Your task to perform on an android device: find which apps use the phone's location Image 0: 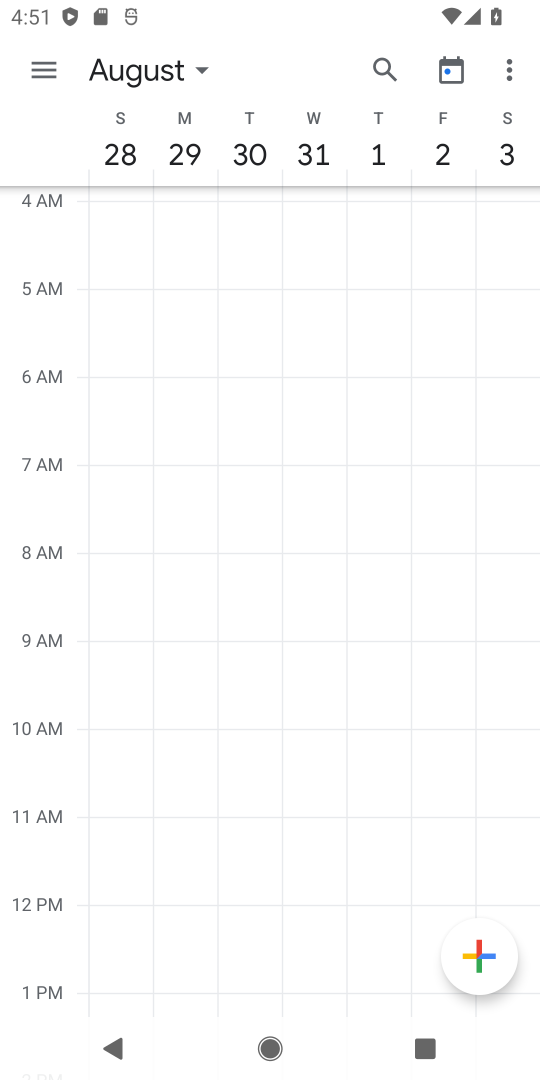
Step 0: press home button
Your task to perform on an android device: find which apps use the phone's location Image 1: 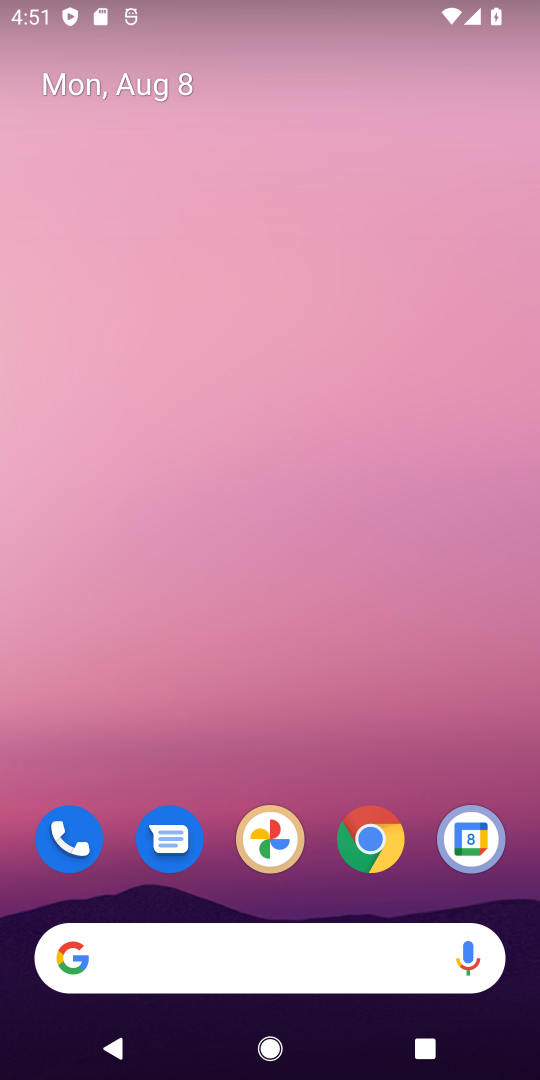
Step 1: drag from (221, 920) to (254, 38)
Your task to perform on an android device: find which apps use the phone's location Image 2: 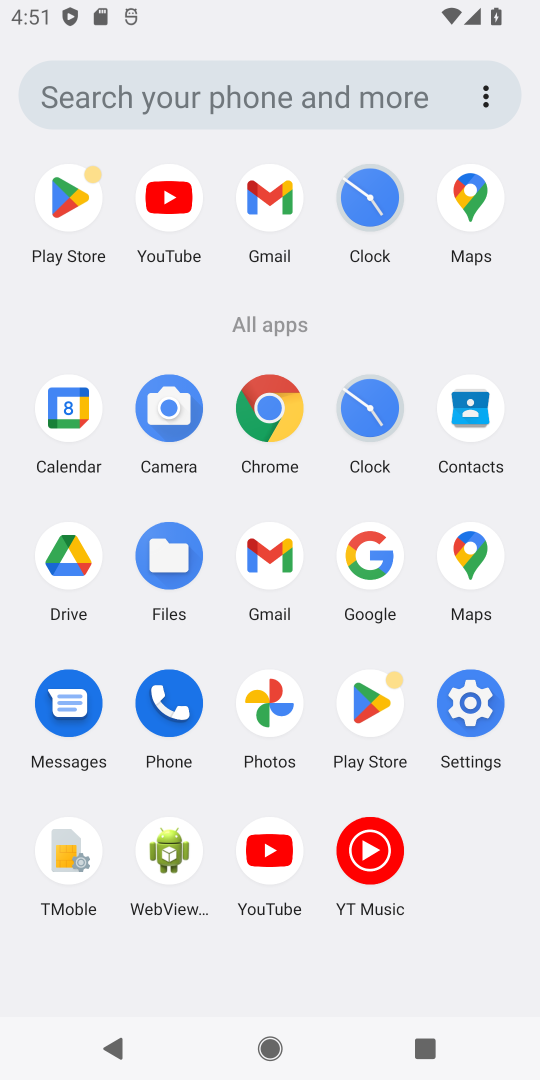
Step 2: click (482, 734)
Your task to perform on an android device: find which apps use the phone's location Image 3: 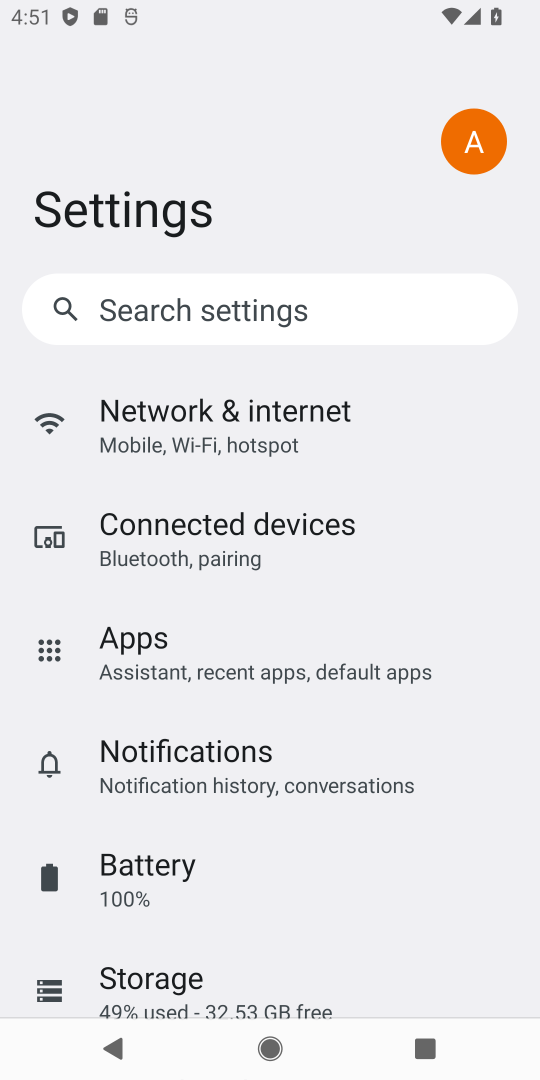
Step 3: drag from (274, 921) to (279, 701)
Your task to perform on an android device: find which apps use the phone's location Image 4: 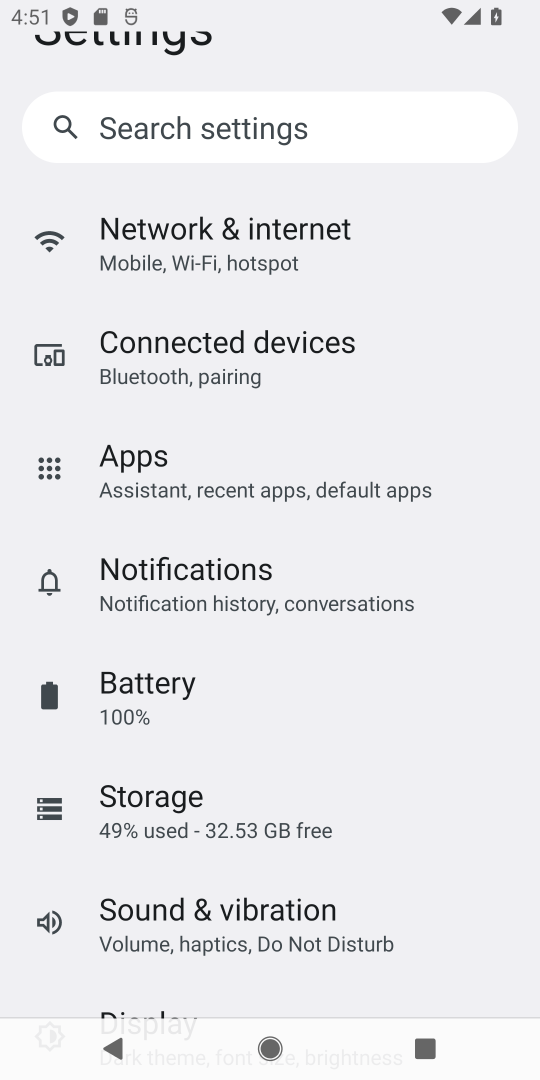
Step 4: drag from (232, 888) to (259, 288)
Your task to perform on an android device: find which apps use the phone's location Image 5: 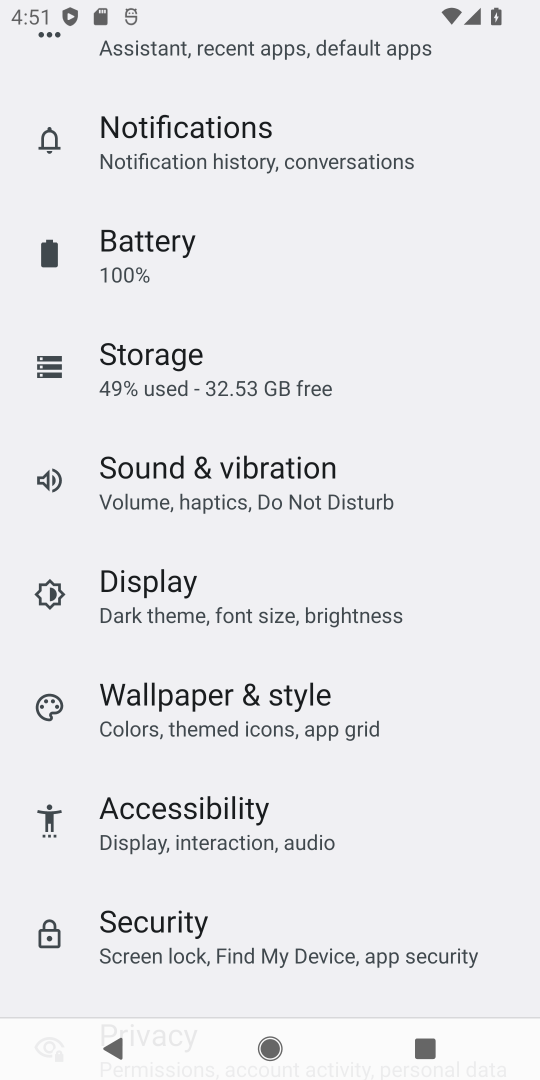
Step 5: drag from (231, 874) to (236, 380)
Your task to perform on an android device: find which apps use the phone's location Image 6: 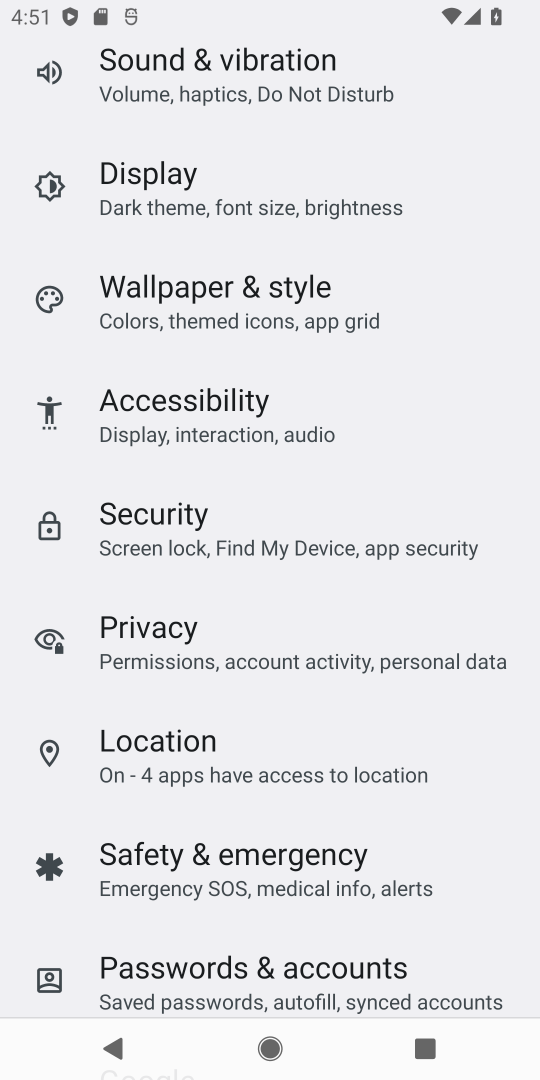
Step 6: click (195, 755)
Your task to perform on an android device: find which apps use the phone's location Image 7: 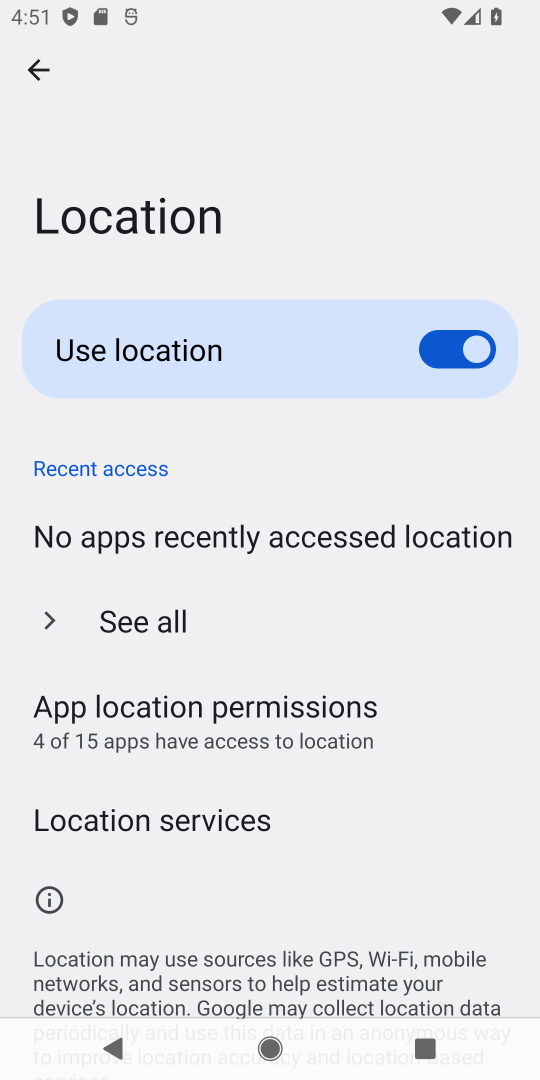
Step 7: drag from (212, 801) to (229, 584)
Your task to perform on an android device: find which apps use the phone's location Image 8: 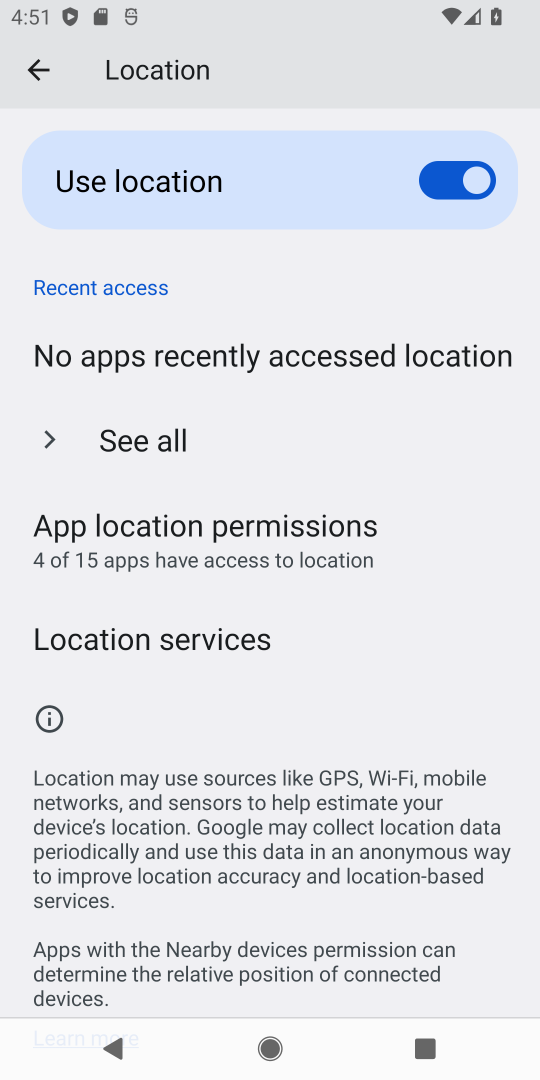
Step 8: click (219, 525)
Your task to perform on an android device: find which apps use the phone's location Image 9: 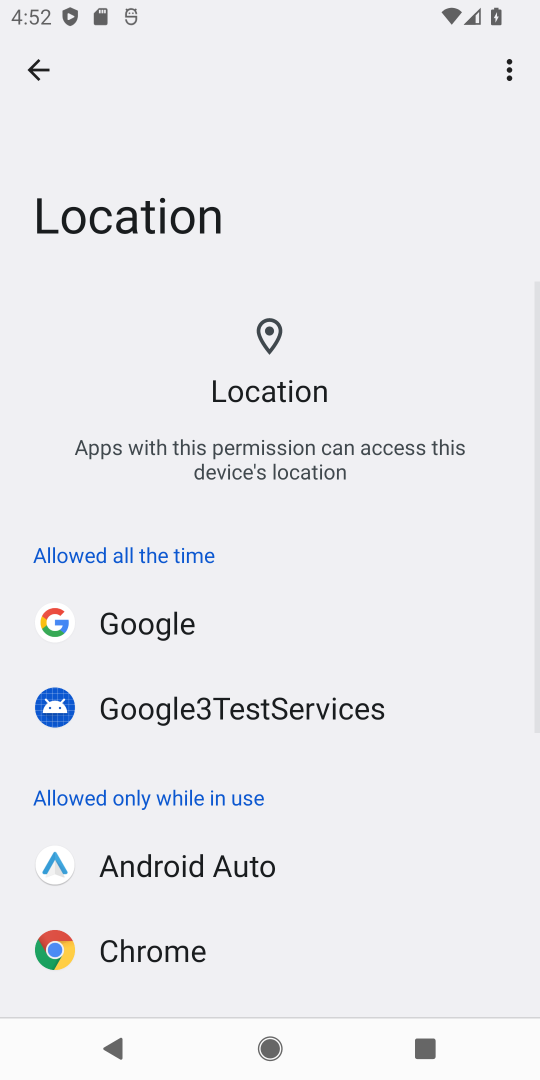
Step 9: task complete